Your task to perform on an android device: Open Google Chrome and open the bookmarks view Image 0: 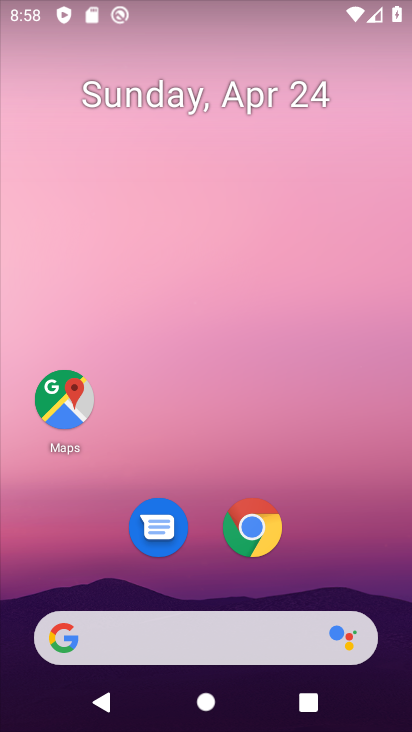
Step 0: drag from (396, 634) to (340, 67)
Your task to perform on an android device: Open Google Chrome and open the bookmarks view Image 1: 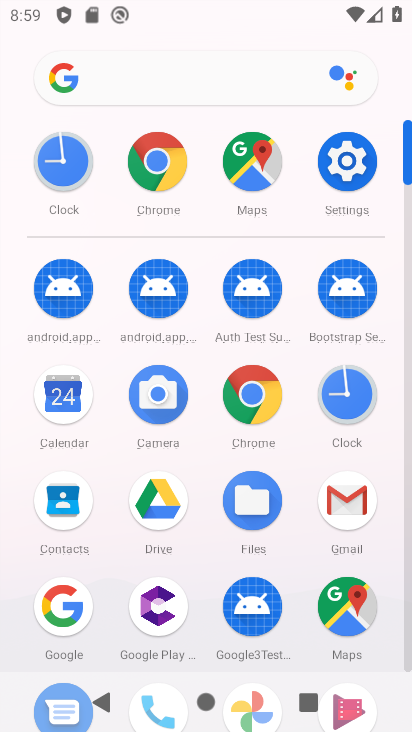
Step 1: click (260, 401)
Your task to perform on an android device: Open Google Chrome and open the bookmarks view Image 2: 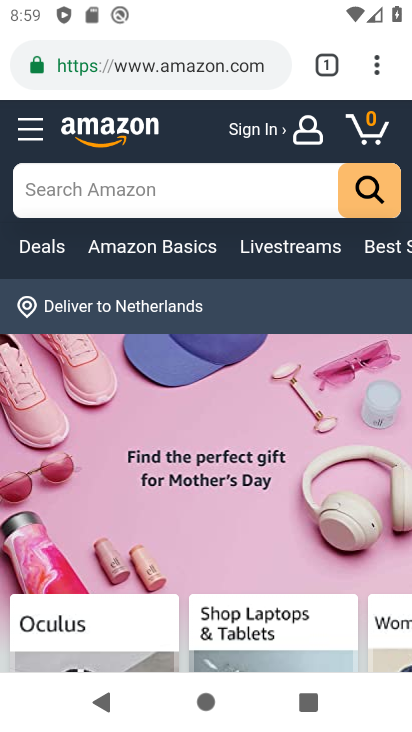
Step 2: press back button
Your task to perform on an android device: Open Google Chrome and open the bookmarks view Image 3: 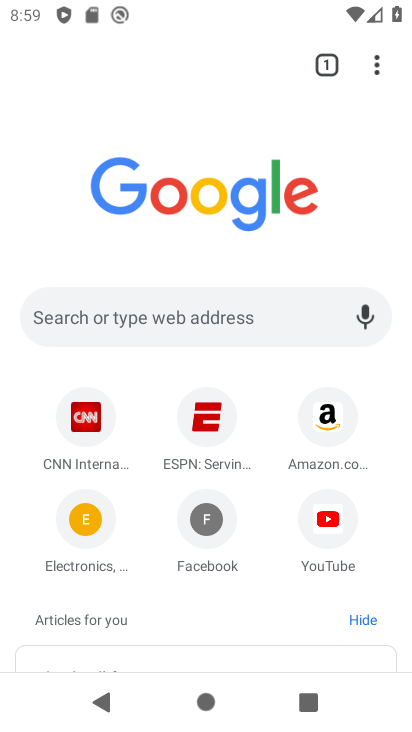
Step 3: click (377, 57)
Your task to perform on an android device: Open Google Chrome and open the bookmarks view Image 4: 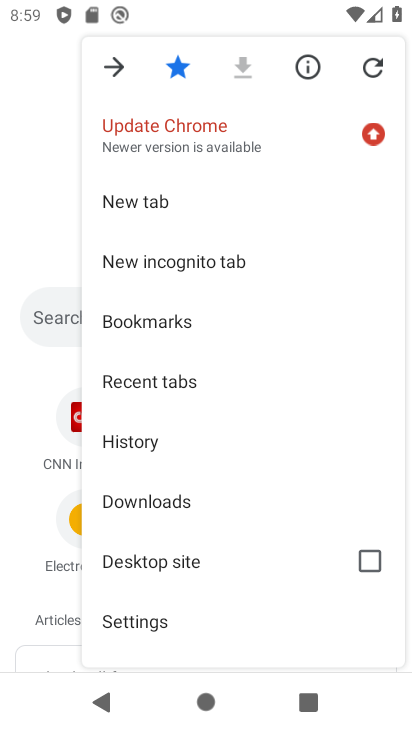
Step 4: click (228, 323)
Your task to perform on an android device: Open Google Chrome and open the bookmarks view Image 5: 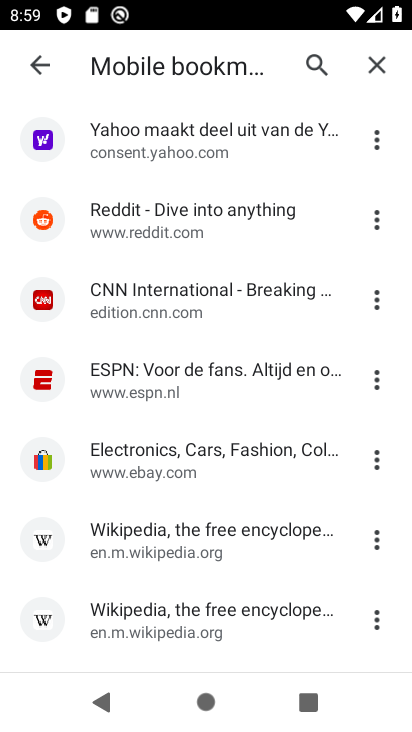
Step 5: task complete